Your task to perform on an android device: Open the phone app and click the voicemail tab. Image 0: 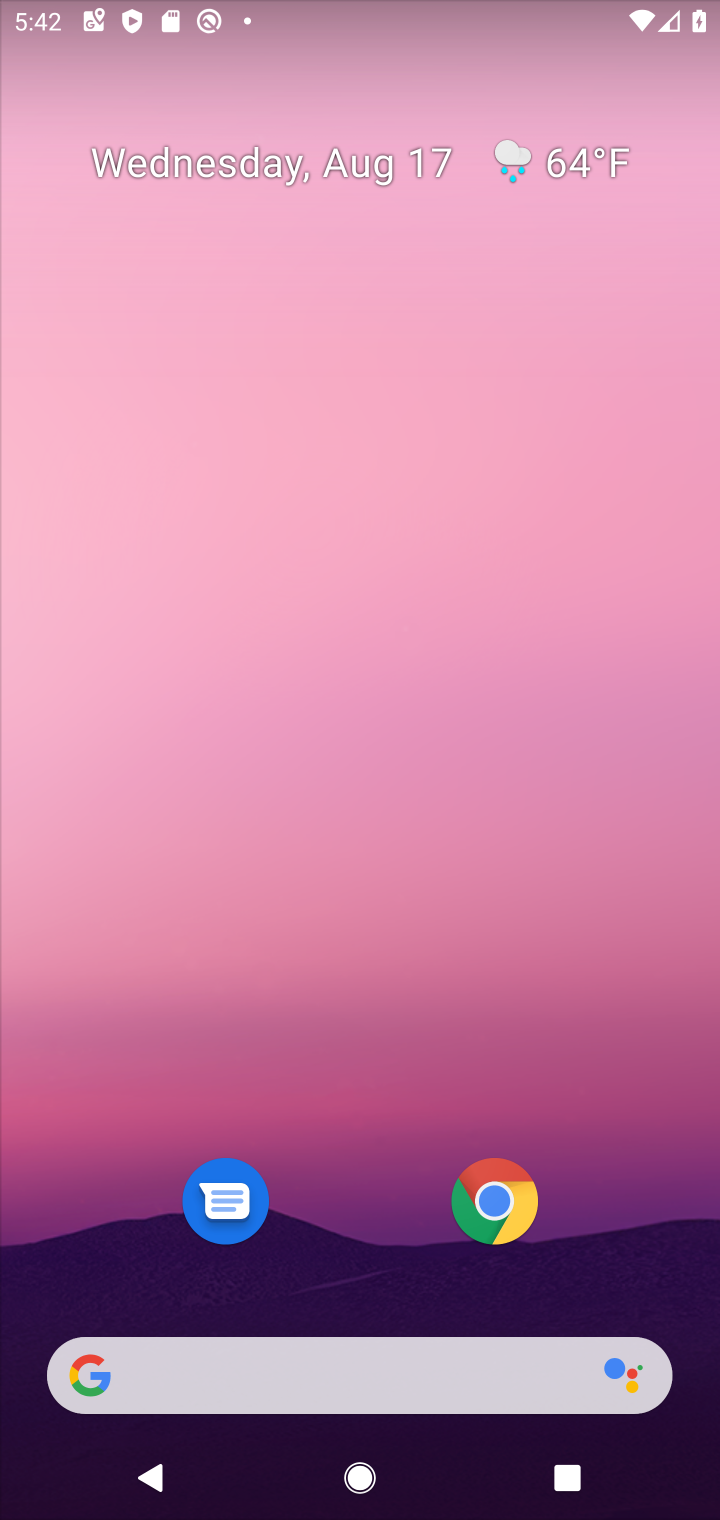
Step 0: press home button
Your task to perform on an android device: Open the phone app and click the voicemail tab. Image 1: 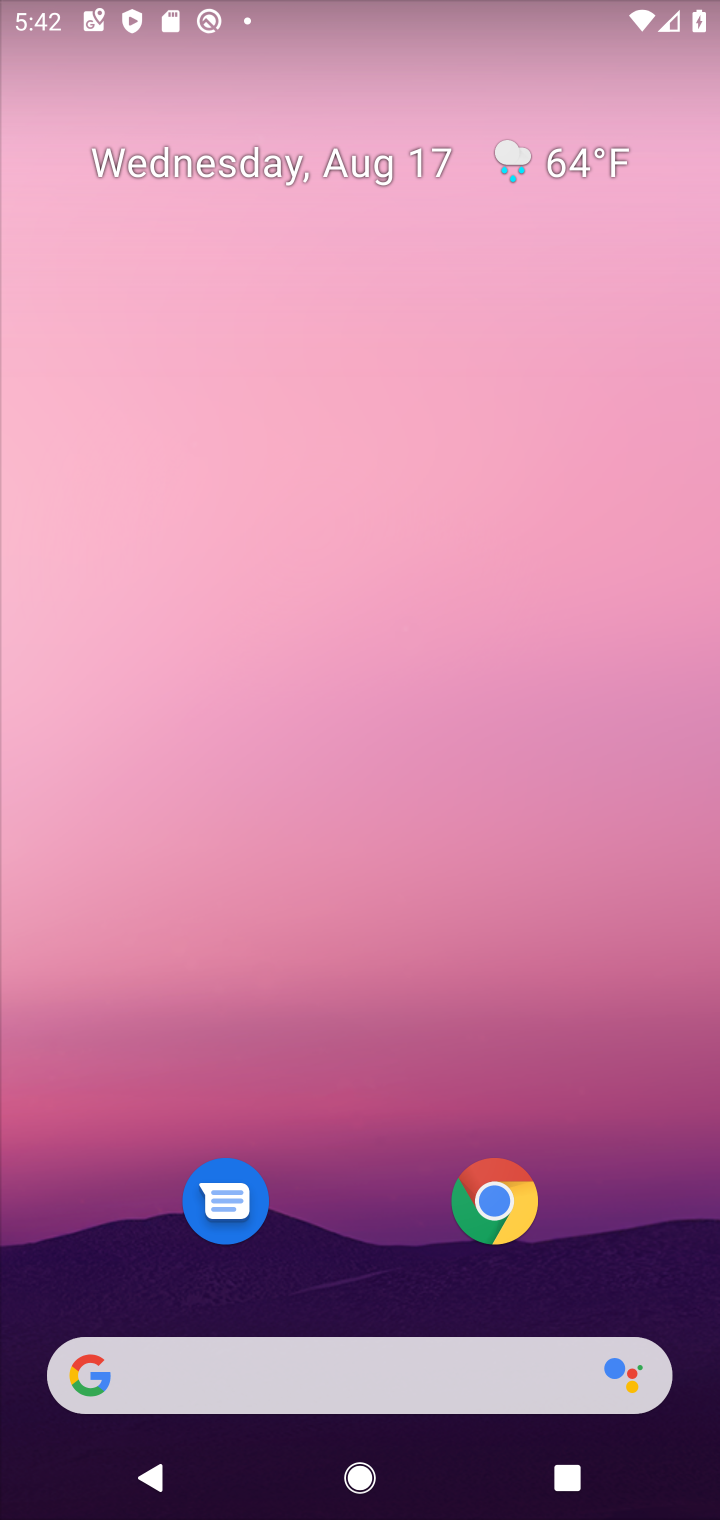
Step 1: drag from (351, 1284) to (312, 141)
Your task to perform on an android device: Open the phone app and click the voicemail tab. Image 2: 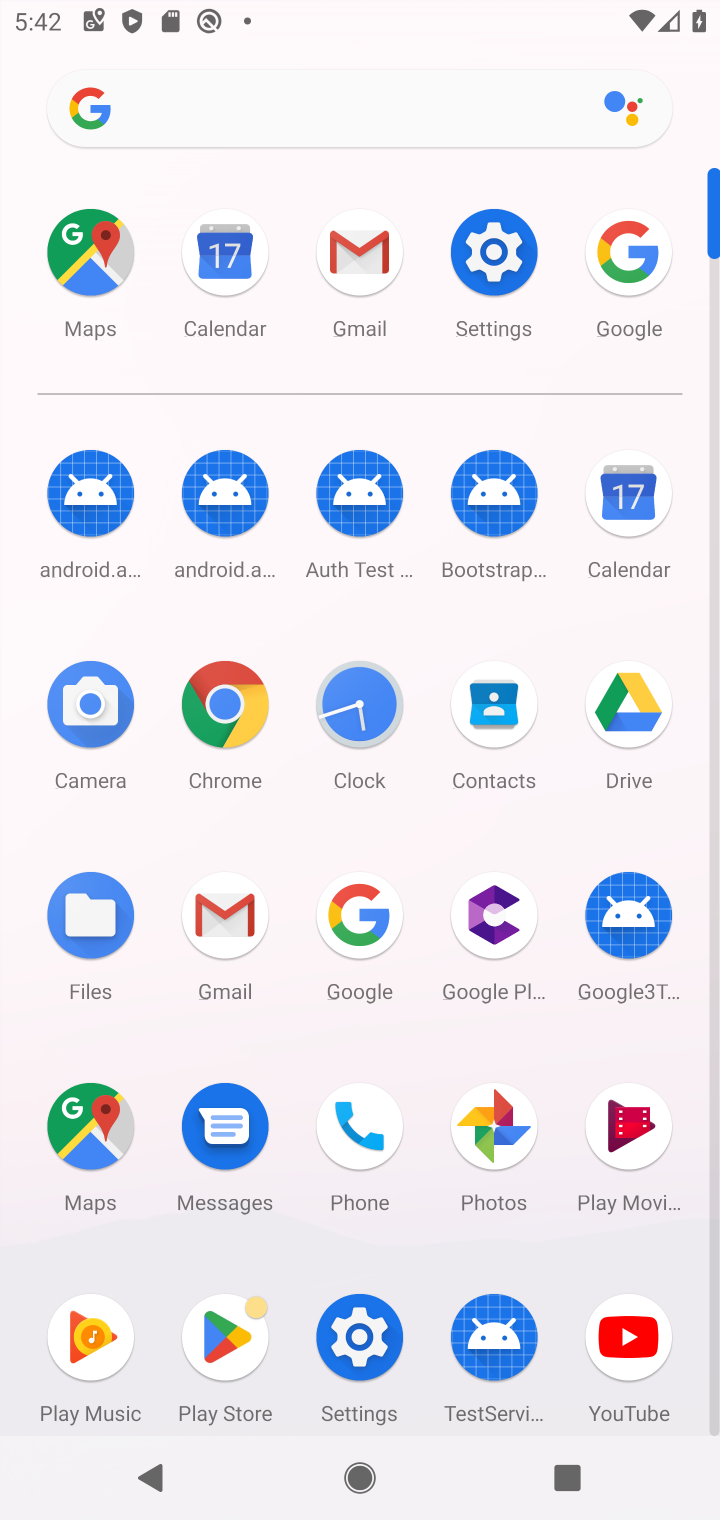
Step 2: click (351, 1135)
Your task to perform on an android device: Open the phone app and click the voicemail tab. Image 3: 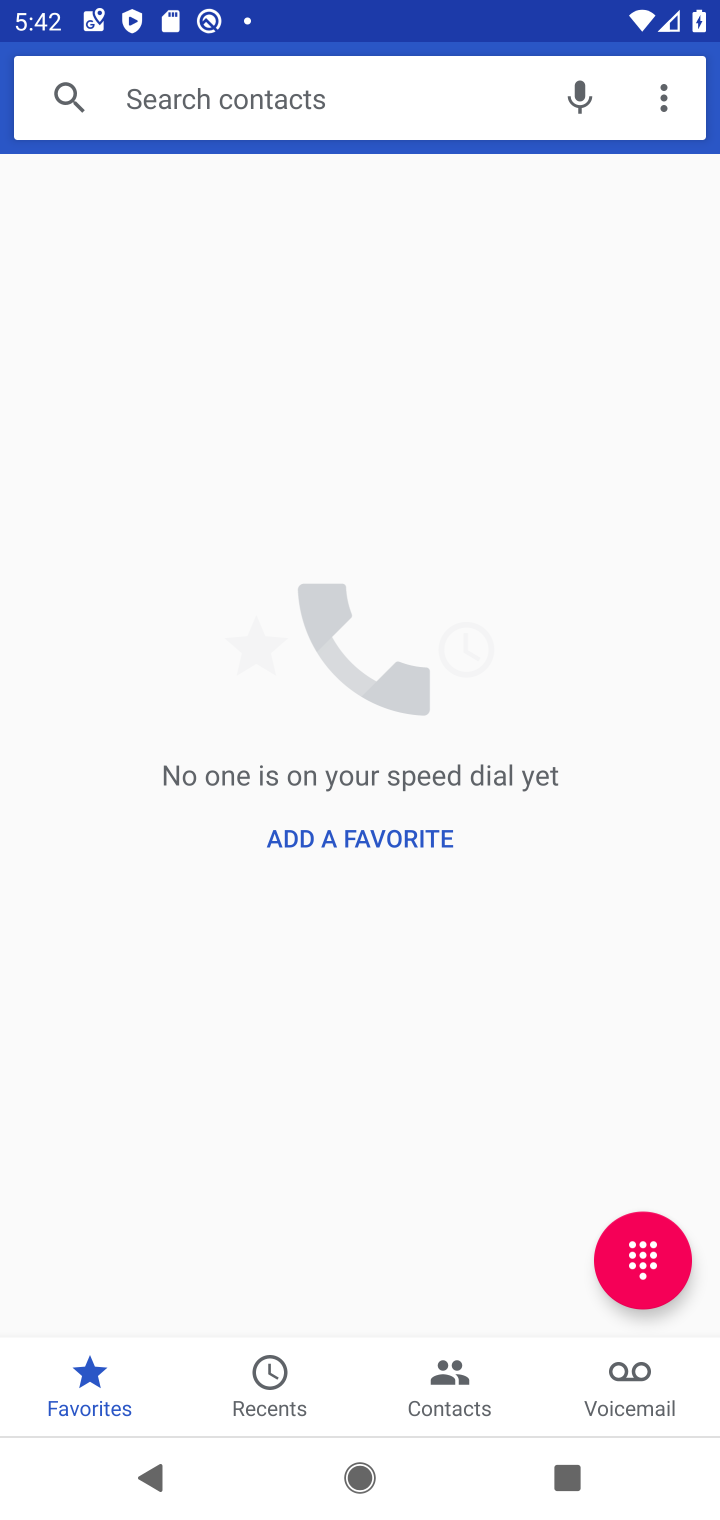
Step 3: click (608, 1361)
Your task to perform on an android device: Open the phone app and click the voicemail tab. Image 4: 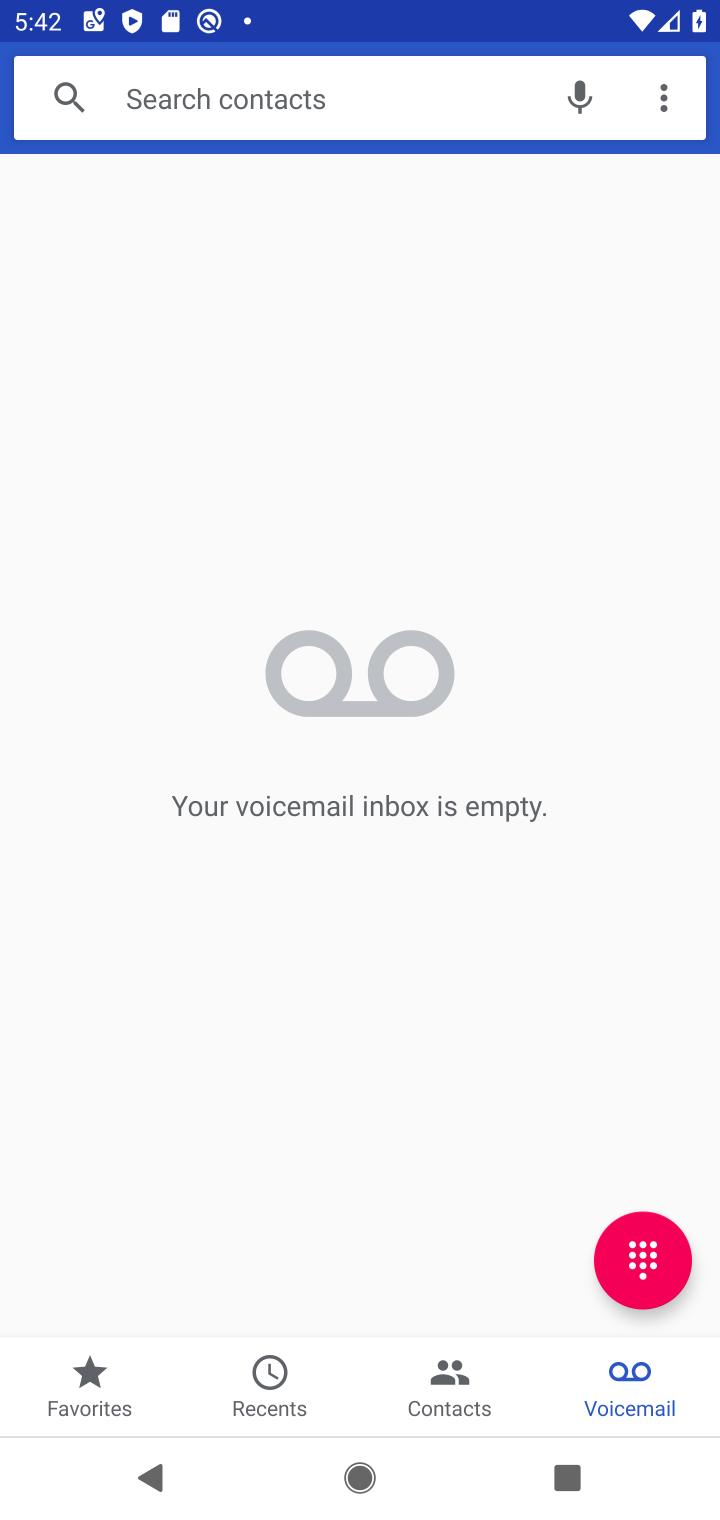
Step 4: task complete